Your task to perform on an android device: Open Wikipedia Image 0: 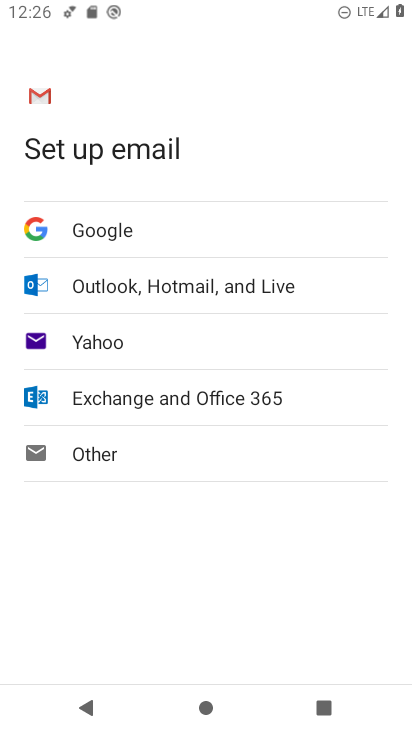
Step 0: press home button
Your task to perform on an android device: Open Wikipedia Image 1: 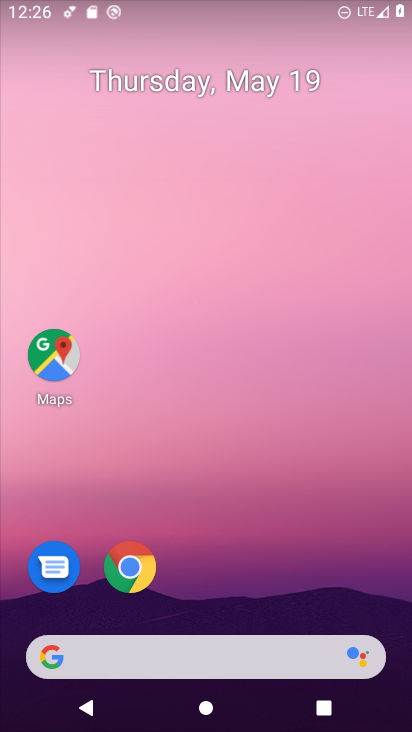
Step 1: click (148, 568)
Your task to perform on an android device: Open Wikipedia Image 2: 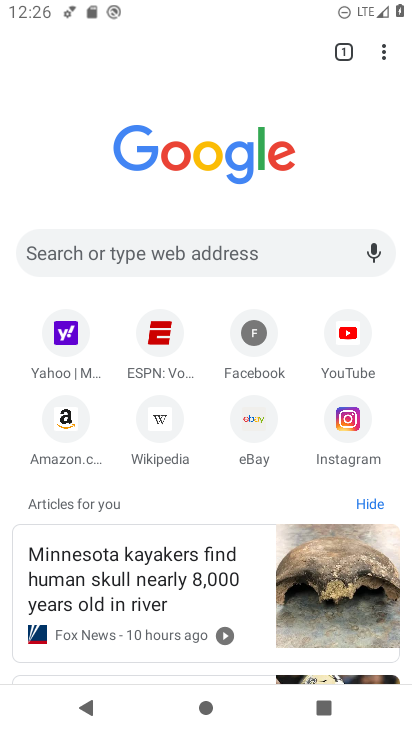
Step 2: click (167, 416)
Your task to perform on an android device: Open Wikipedia Image 3: 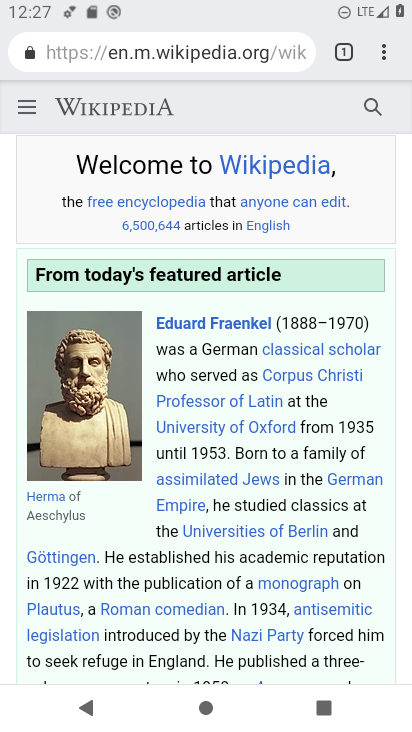
Step 3: task complete